Your task to perform on an android device: change text size in settings app Image 0: 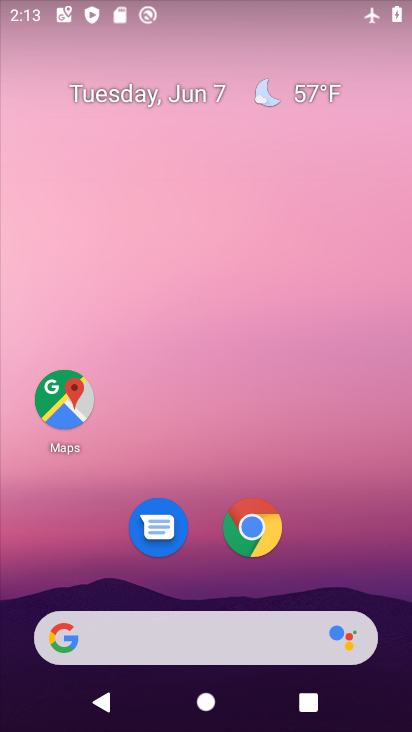
Step 0: drag from (385, 554) to (260, 136)
Your task to perform on an android device: change text size in settings app Image 1: 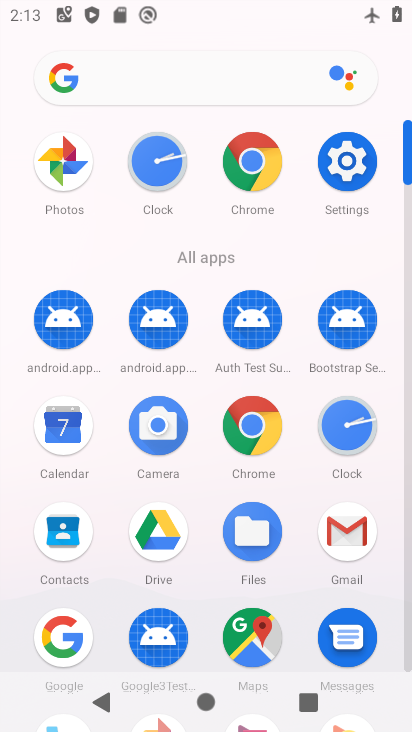
Step 1: click (357, 170)
Your task to perform on an android device: change text size in settings app Image 2: 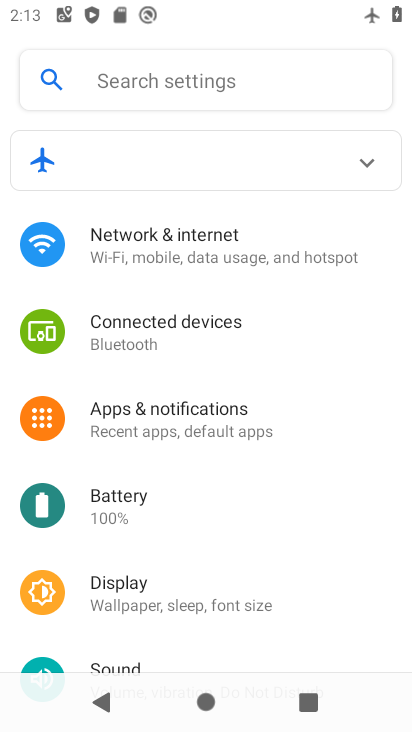
Step 2: click (256, 577)
Your task to perform on an android device: change text size in settings app Image 3: 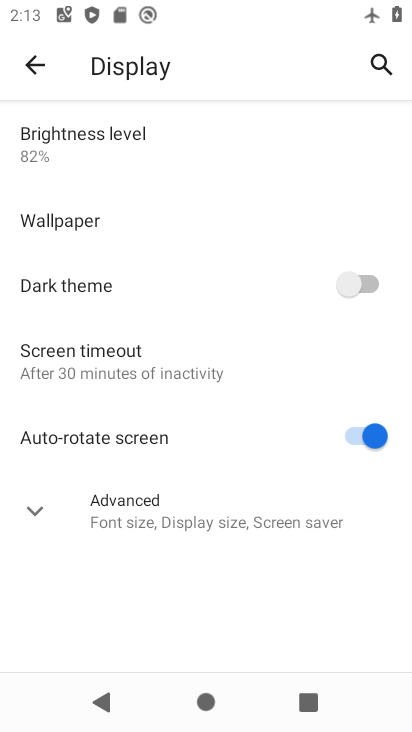
Step 3: click (233, 514)
Your task to perform on an android device: change text size in settings app Image 4: 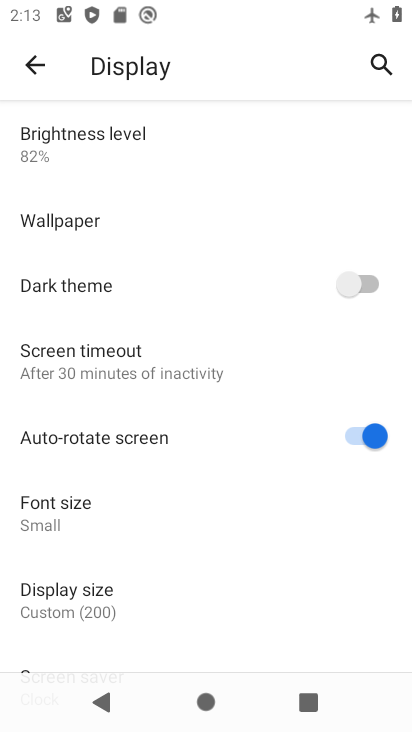
Step 4: click (234, 498)
Your task to perform on an android device: change text size in settings app Image 5: 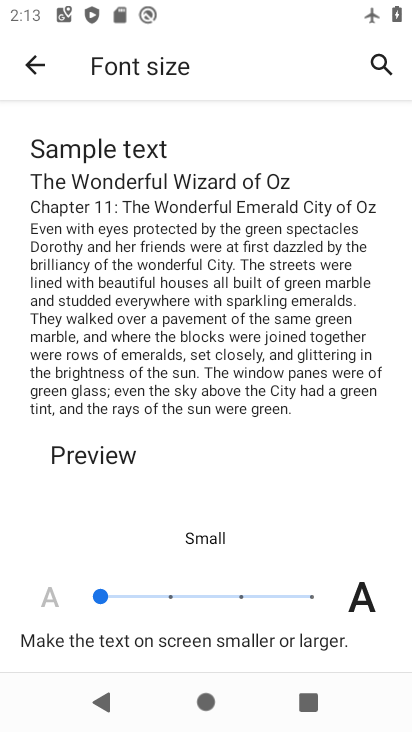
Step 5: click (169, 599)
Your task to perform on an android device: change text size in settings app Image 6: 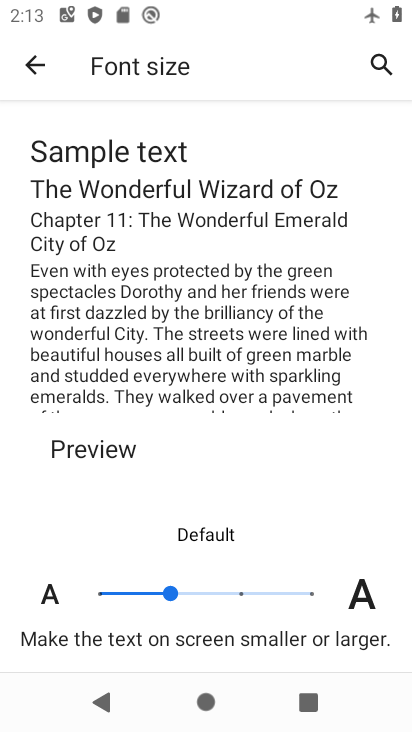
Step 6: task complete